Your task to perform on an android device: empty trash in google photos Image 0: 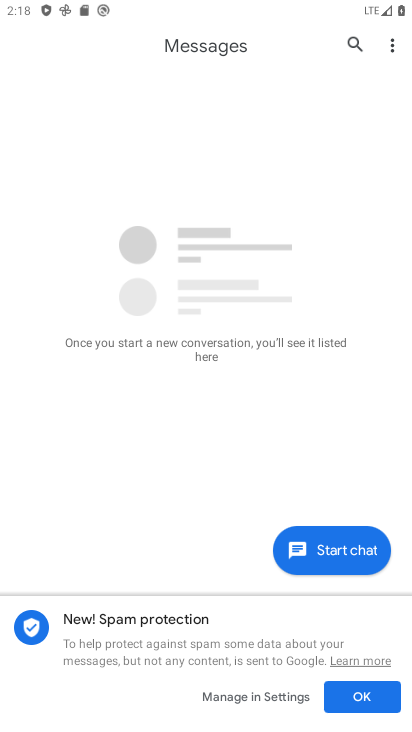
Step 0: press home button
Your task to perform on an android device: empty trash in google photos Image 1: 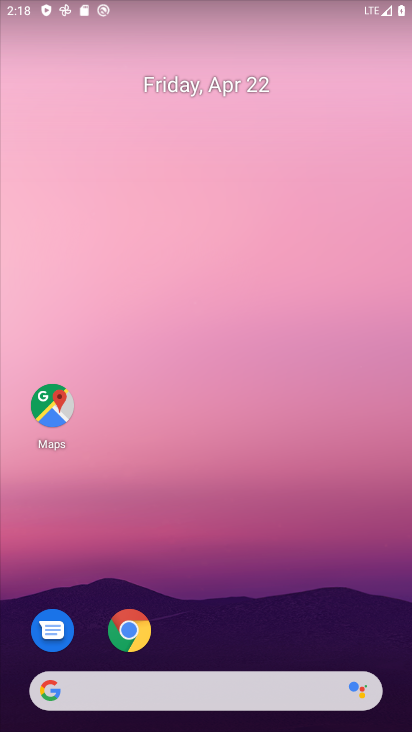
Step 1: drag from (381, 606) to (351, 226)
Your task to perform on an android device: empty trash in google photos Image 2: 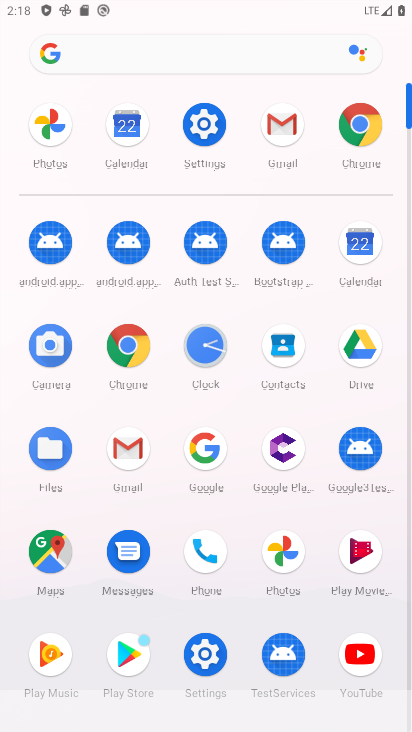
Step 2: click (283, 545)
Your task to perform on an android device: empty trash in google photos Image 3: 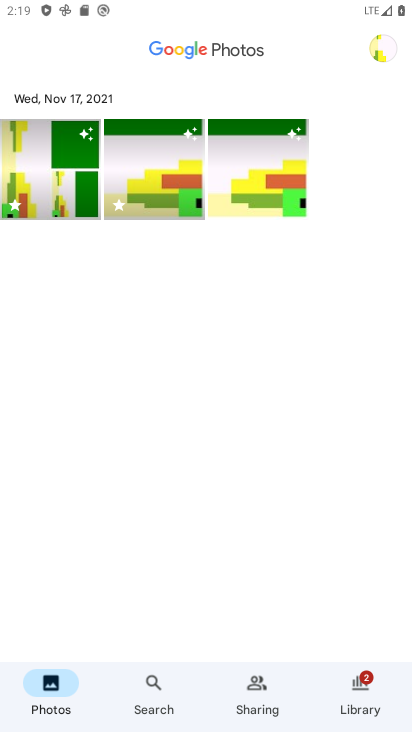
Step 3: click (366, 691)
Your task to perform on an android device: empty trash in google photos Image 4: 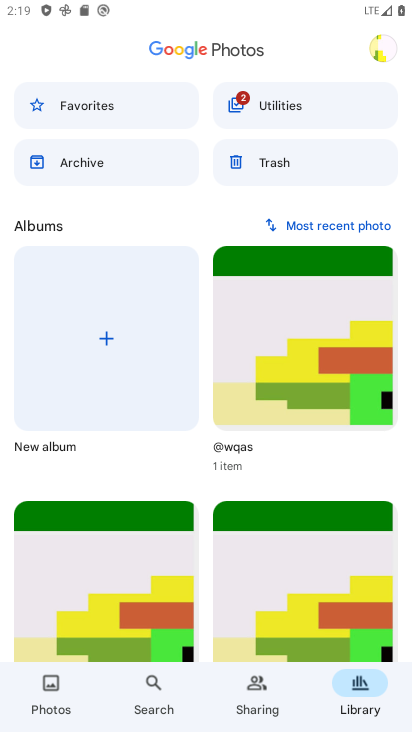
Step 4: click (232, 161)
Your task to perform on an android device: empty trash in google photos Image 5: 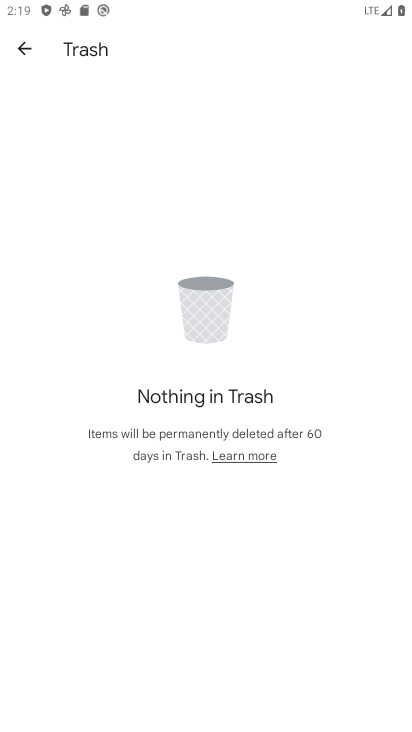
Step 5: task complete